Your task to perform on an android device: What is the news today? Image 0: 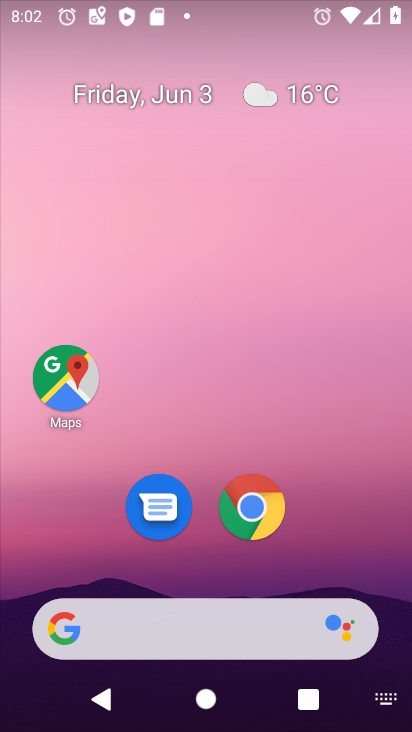
Step 0: drag from (348, 486) to (50, 42)
Your task to perform on an android device: What is the news today? Image 1: 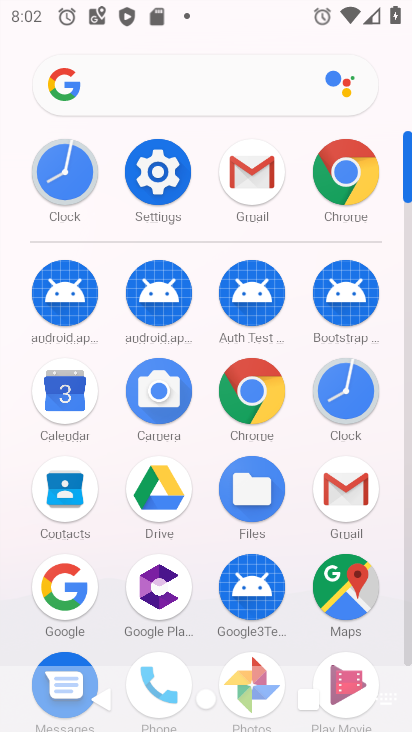
Step 1: click (75, 593)
Your task to perform on an android device: What is the news today? Image 2: 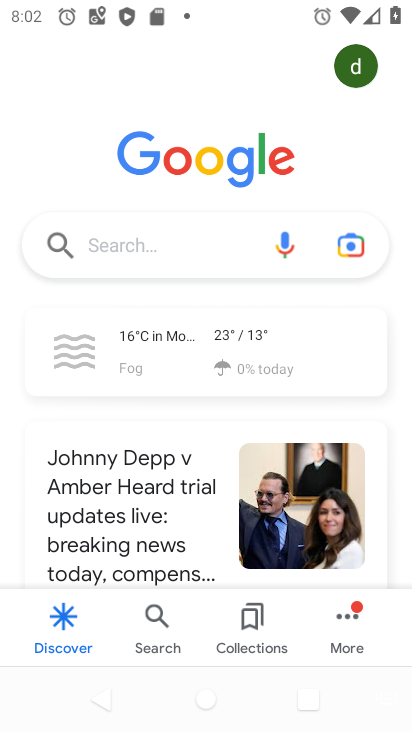
Step 2: click (166, 226)
Your task to perform on an android device: What is the news today? Image 3: 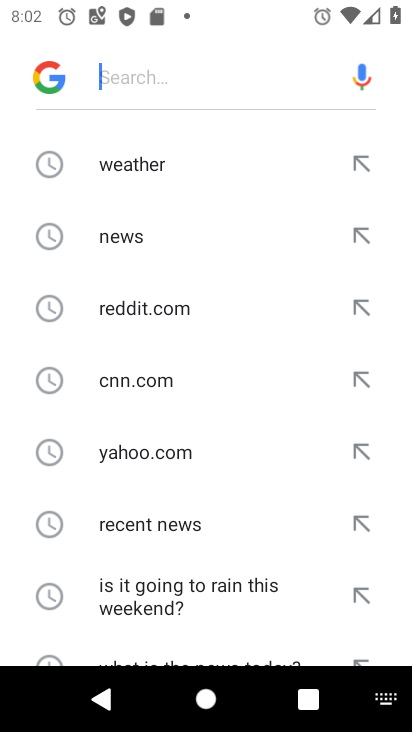
Step 3: click (142, 236)
Your task to perform on an android device: What is the news today? Image 4: 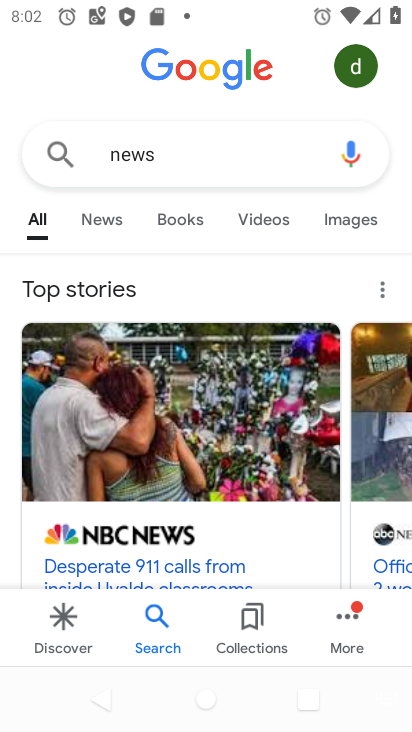
Step 4: task complete